Your task to perform on an android device: turn on data saver in the chrome app Image 0: 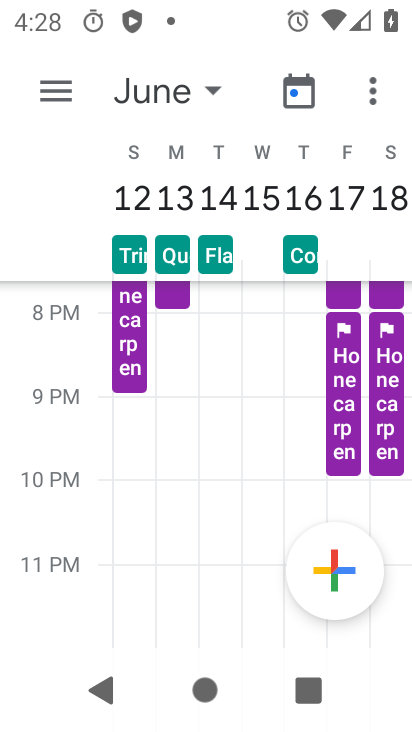
Step 0: press home button
Your task to perform on an android device: turn on data saver in the chrome app Image 1: 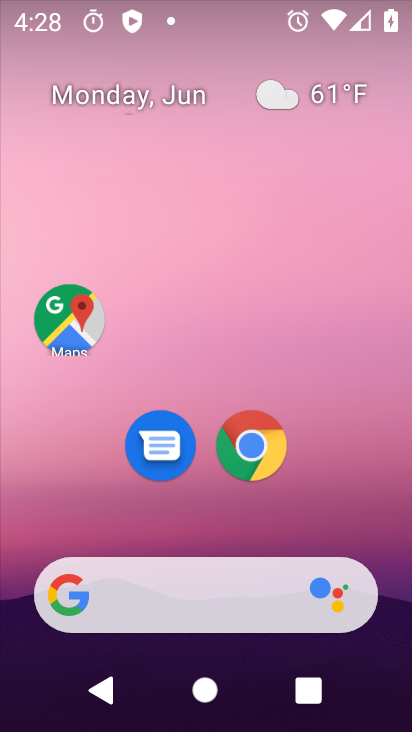
Step 1: click (264, 482)
Your task to perform on an android device: turn on data saver in the chrome app Image 2: 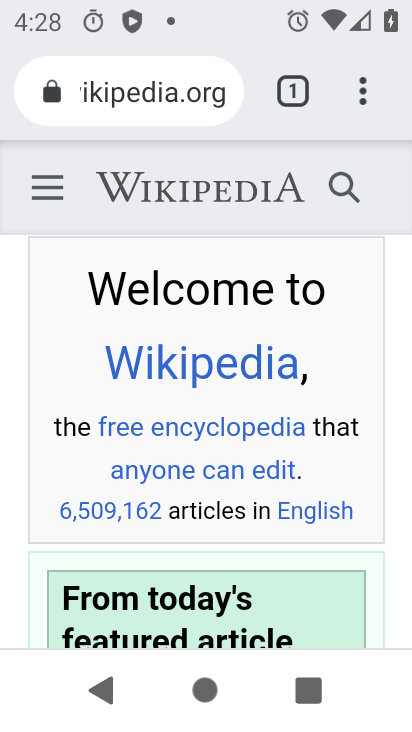
Step 2: click (367, 99)
Your task to perform on an android device: turn on data saver in the chrome app Image 3: 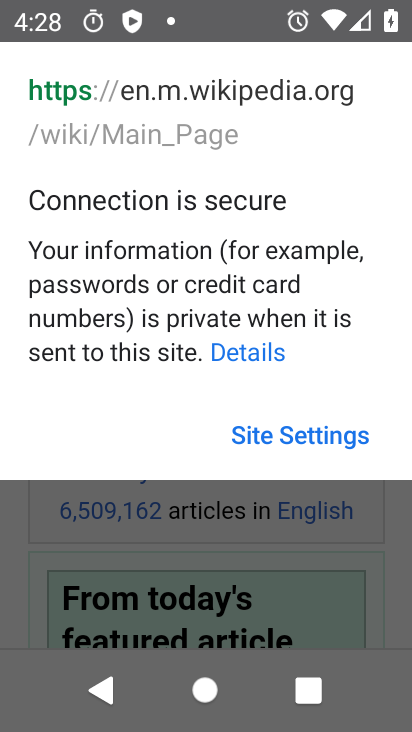
Step 3: click (220, 511)
Your task to perform on an android device: turn on data saver in the chrome app Image 4: 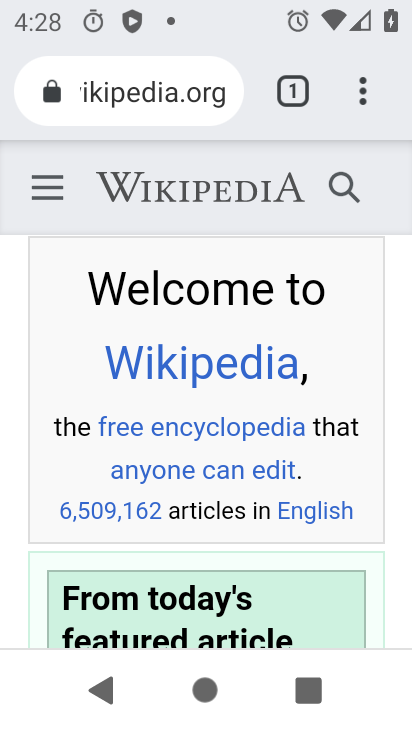
Step 4: click (367, 92)
Your task to perform on an android device: turn on data saver in the chrome app Image 5: 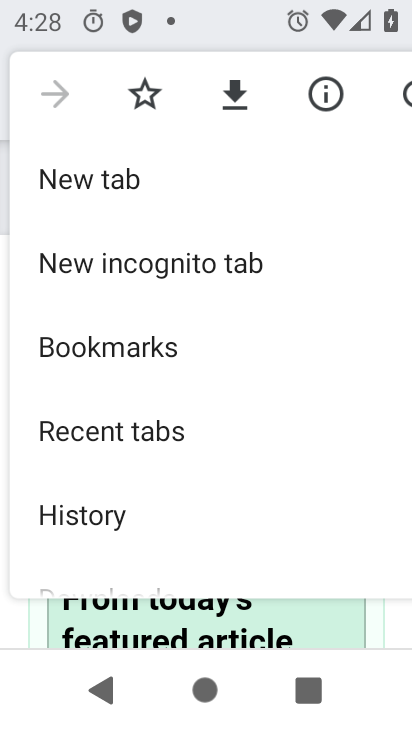
Step 5: drag from (133, 410) to (127, 256)
Your task to perform on an android device: turn on data saver in the chrome app Image 6: 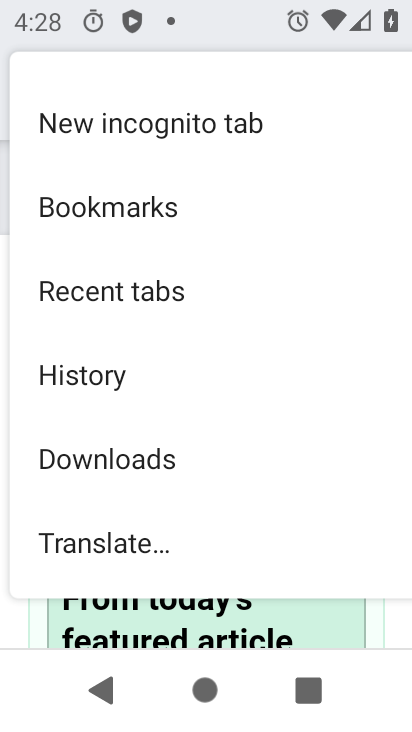
Step 6: drag from (126, 491) to (130, 431)
Your task to perform on an android device: turn on data saver in the chrome app Image 7: 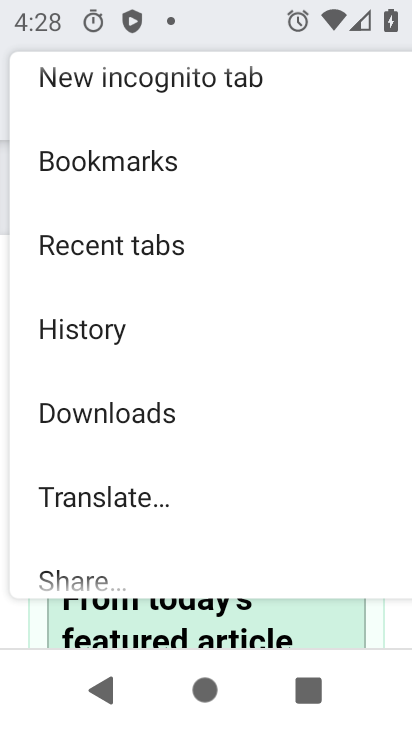
Step 7: drag from (180, 451) to (184, 284)
Your task to perform on an android device: turn on data saver in the chrome app Image 8: 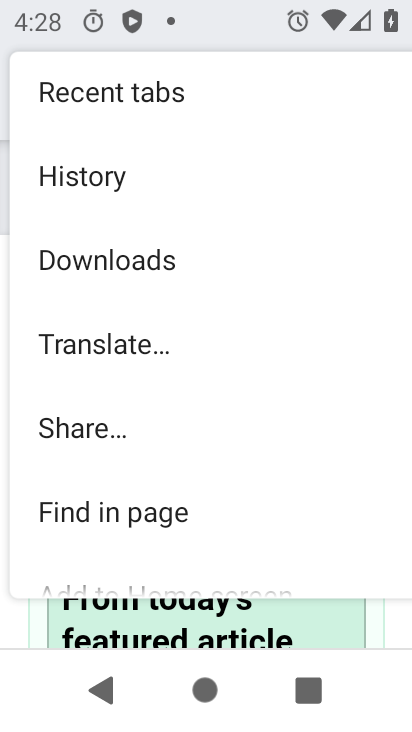
Step 8: drag from (183, 539) to (209, 355)
Your task to perform on an android device: turn on data saver in the chrome app Image 9: 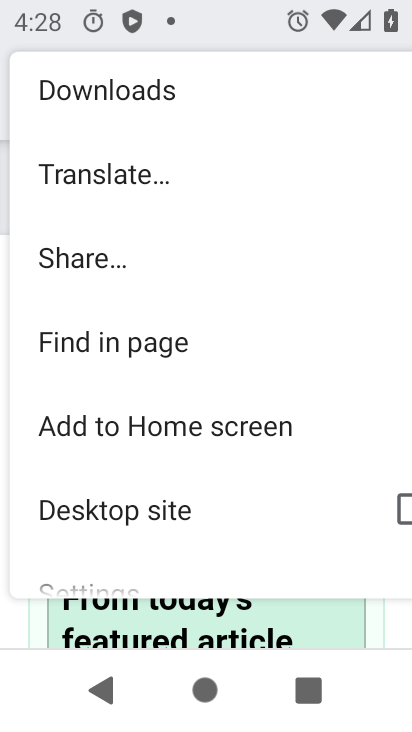
Step 9: drag from (171, 552) to (201, 390)
Your task to perform on an android device: turn on data saver in the chrome app Image 10: 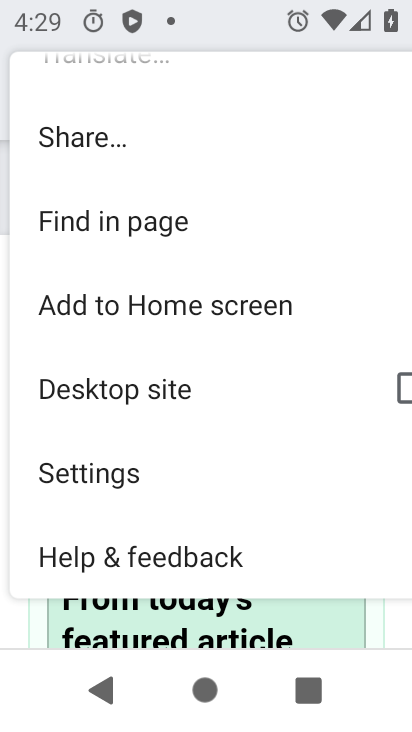
Step 10: click (112, 487)
Your task to perform on an android device: turn on data saver in the chrome app Image 11: 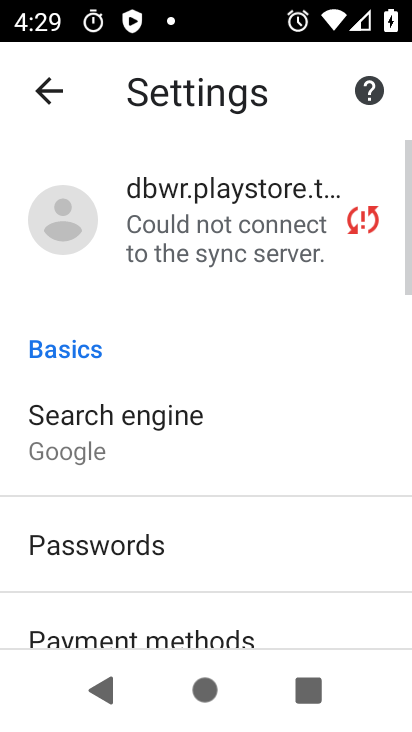
Step 11: drag from (166, 569) to (192, 340)
Your task to perform on an android device: turn on data saver in the chrome app Image 12: 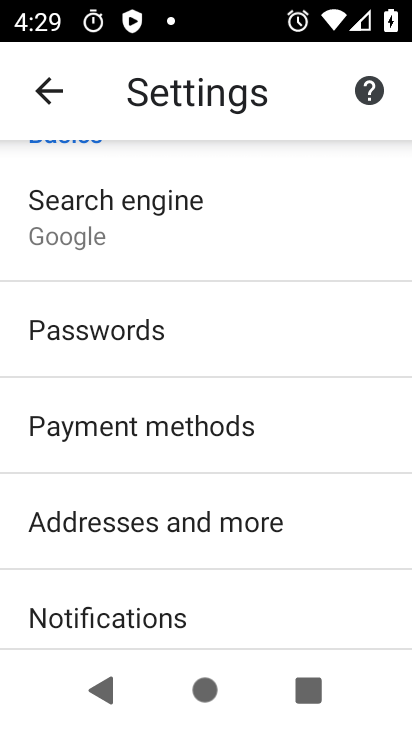
Step 12: drag from (190, 584) to (192, 436)
Your task to perform on an android device: turn on data saver in the chrome app Image 13: 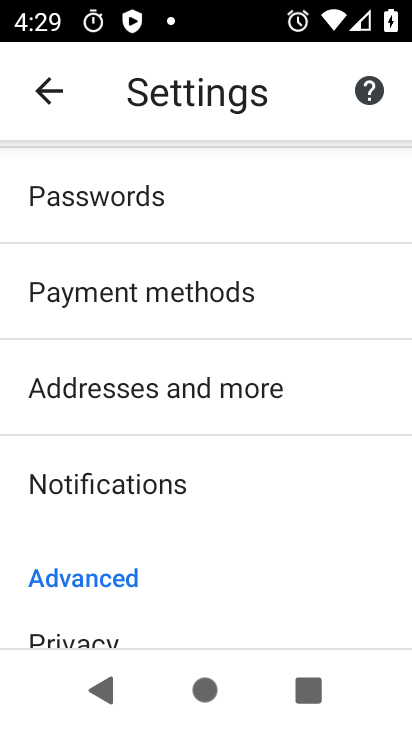
Step 13: drag from (166, 600) to (174, 445)
Your task to perform on an android device: turn on data saver in the chrome app Image 14: 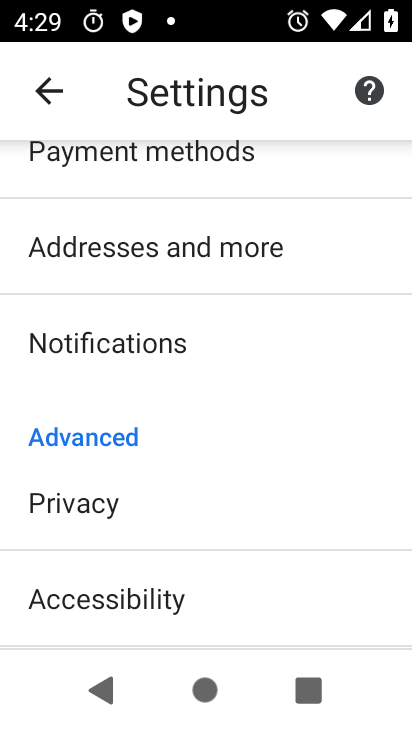
Step 14: drag from (208, 583) to (239, 266)
Your task to perform on an android device: turn on data saver in the chrome app Image 15: 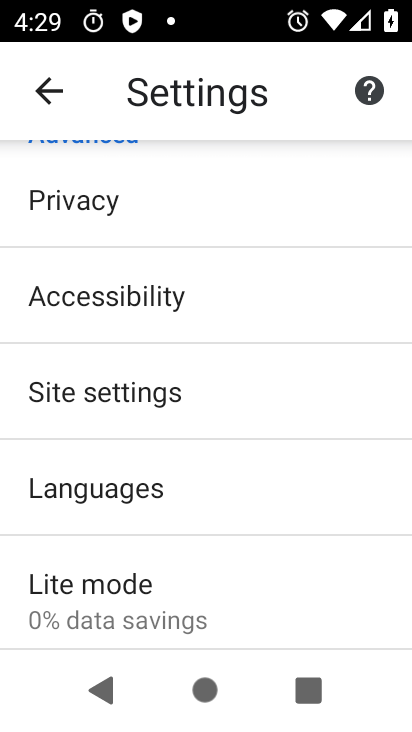
Step 15: click (131, 617)
Your task to perform on an android device: turn on data saver in the chrome app Image 16: 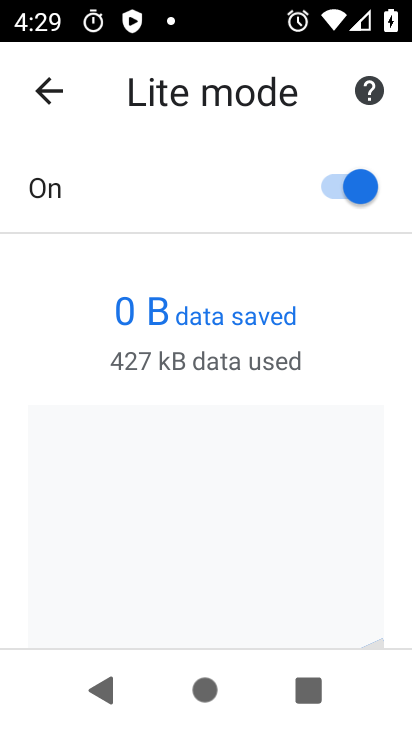
Step 16: click (335, 187)
Your task to perform on an android device: turn on data saver in the chrome app Image 17: 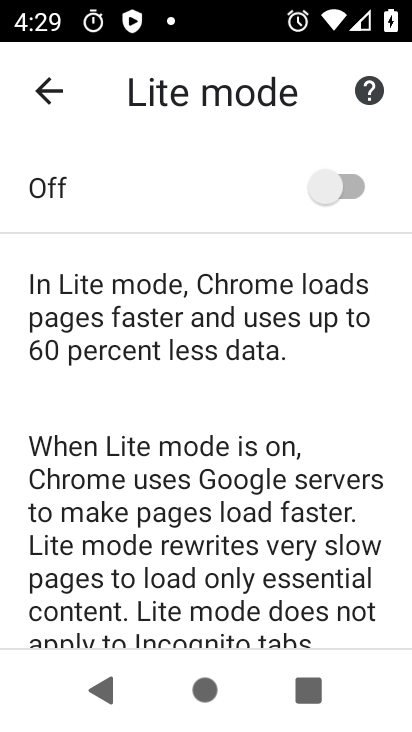
Step 17: task complete